Your task to perform on an android device: Go to Google Image 0: 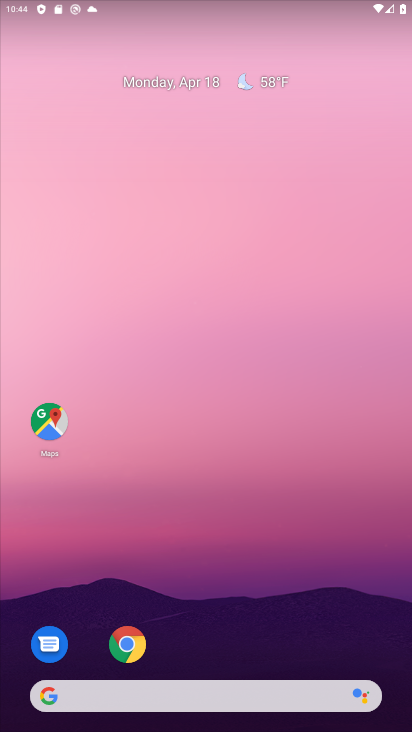
Step 0: drag from (197, 643) to (69, 236)
Your task to perform on an android device: Go to Google Image 1: 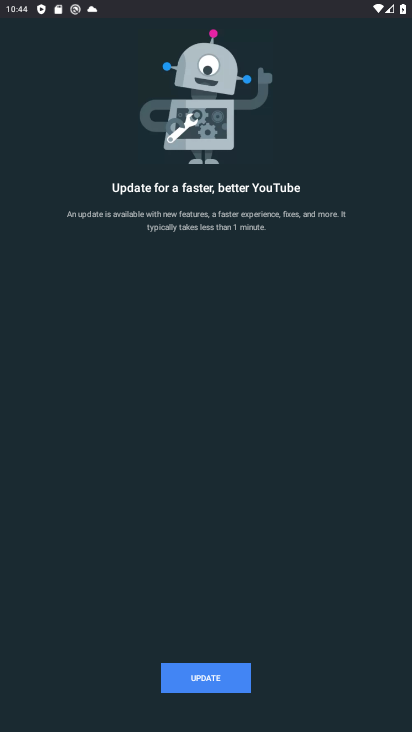
Step 1: press home button
Your task to perform on an android device: Go to Google Image 2: 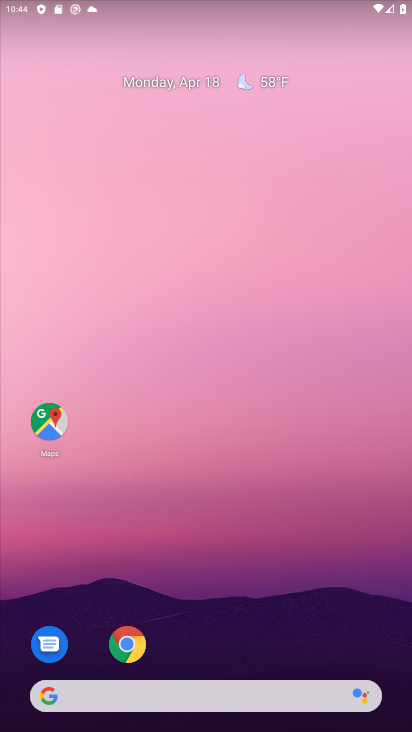
Step 2: drag from (219, 651) to (208, 194)
Your task to perform on an android device: Go to Google Image 3: 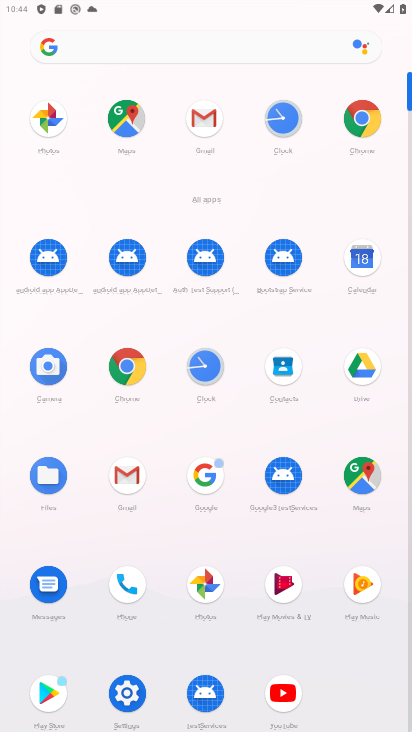
Step 3: click (214, 474)
Your task to perform on an android device: Go to Google Image 4: 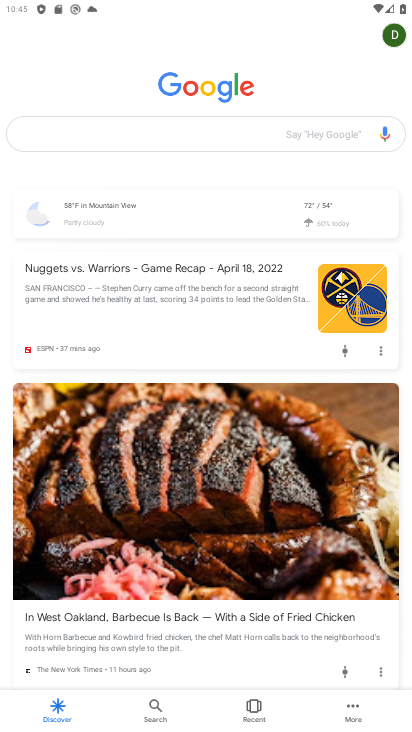
Step 4: task complete